Your task to perform on an android device: open a bookmark in the chrome app Image 0: 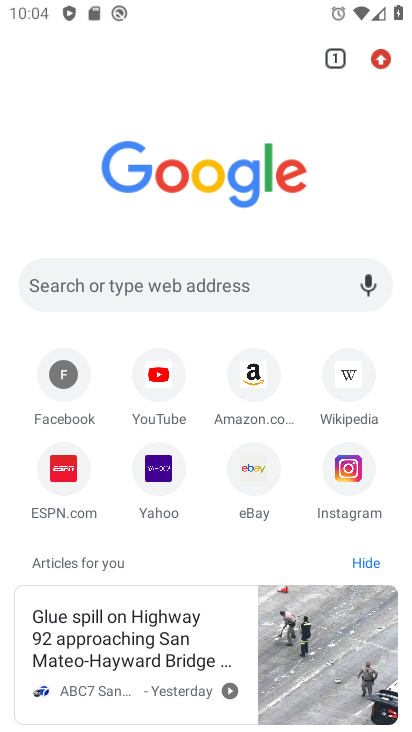
Step 0: click (384, 62)
Your task to perform on an android device: open a bookmark in the chrome app Image 1: 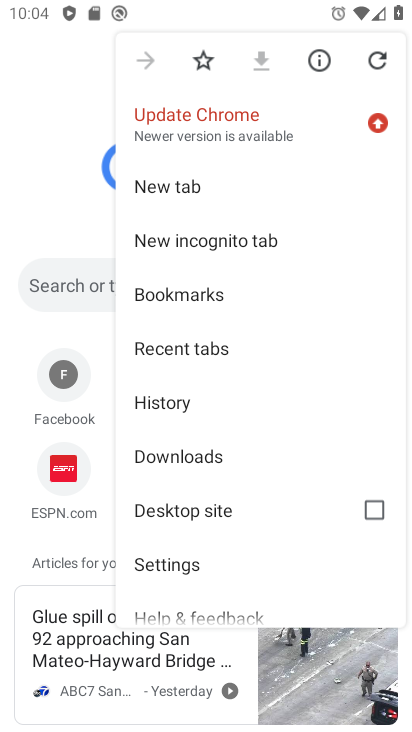
Step 1: click (202, 297)
Your task to perform on an android device: open a bookmark in the chrome app Image 2: 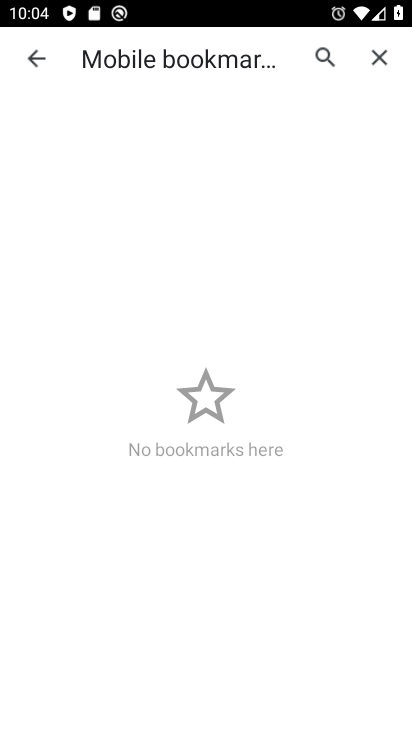
Step 2: click (33, 41)
Your task to perform on an android device: open a bookmark in the chrome app Image 3: 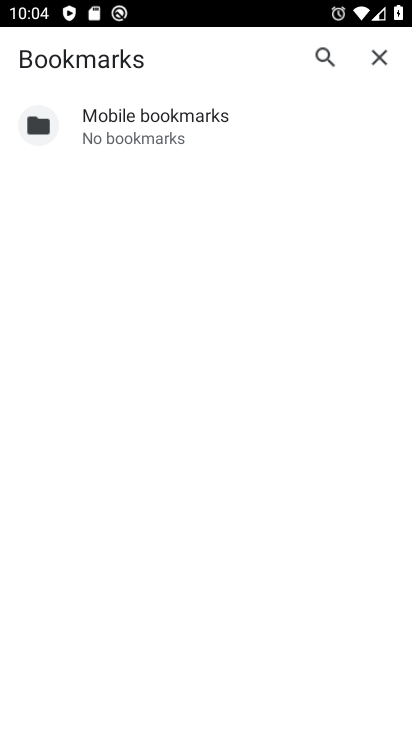
Step 3: click (378, 51)
Your task to perform on an android device: open a bookmark in the chrome app Image 4: 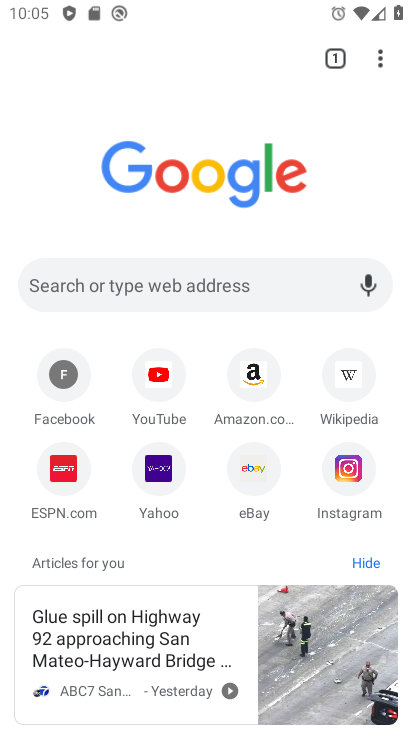
Step 4: click (361, 380)
Your task to perform on an android device: open a bookmark in the chrome app Image 5: 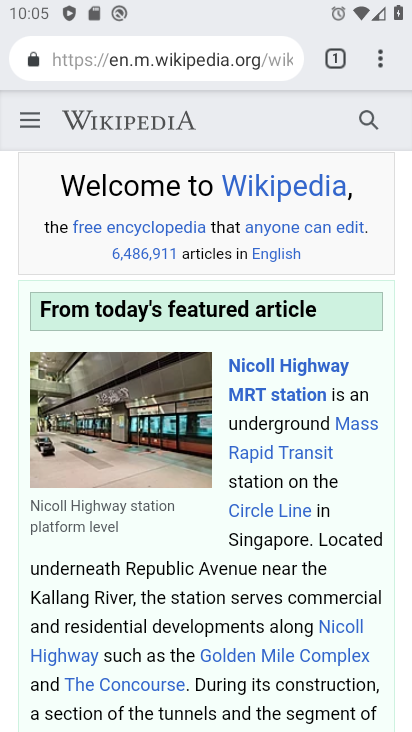
Step 5: task complete